Your task to perform on an android device: Show me popular videos on Youtube Image 0: 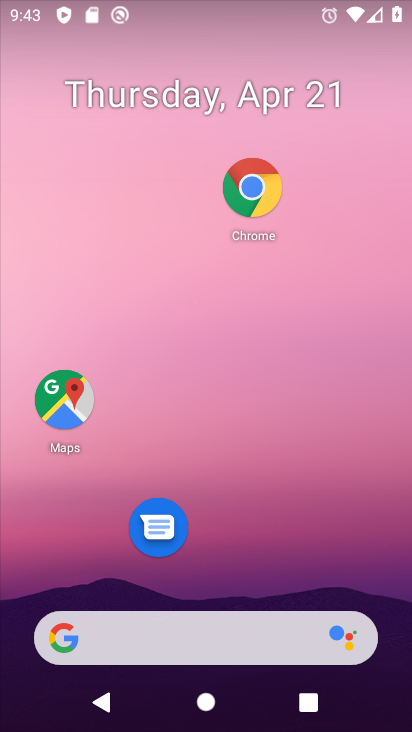
Step 0: click (297, 214)
Your task to perform on an android device: Show me popular videos on Youtube Image 1: 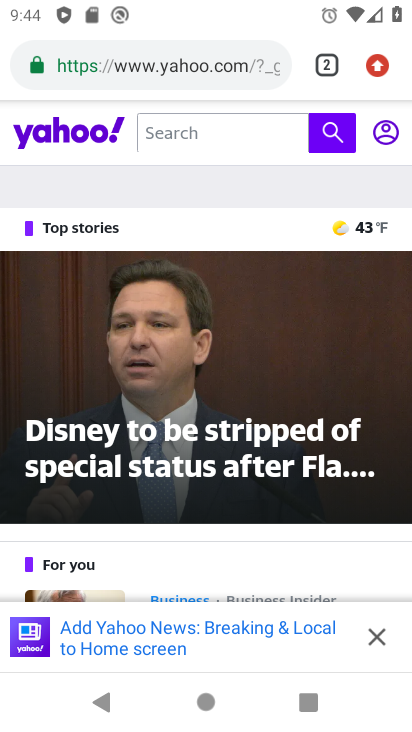
Step 1: press home button
Your task to perform on an android device: Show me popular videos on Youtube Image 2: 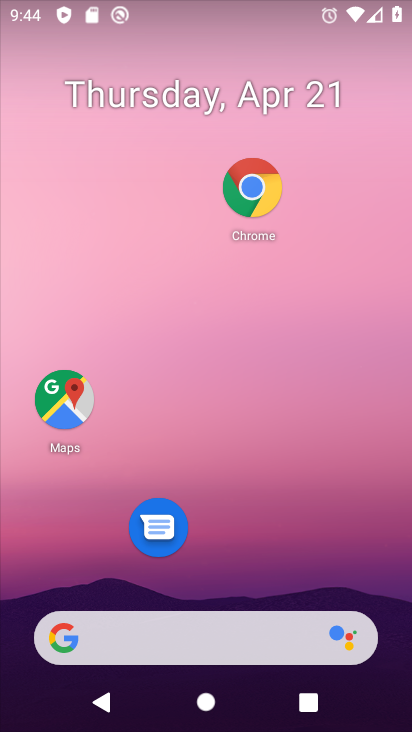
Step 2: drag from (215, 642) to (275, 262)
Your task to perform on an android device: Show me popular videos on Youtube Image 3: 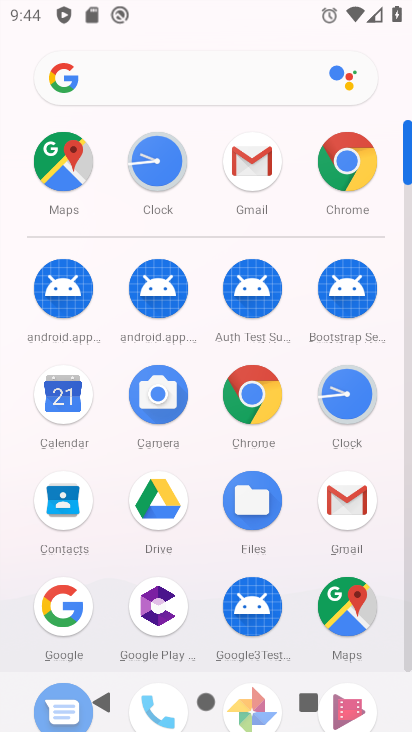
Step 3: drag from (322, 602) to (409, 145)
Your task to perform on an android device: Show me popular videos on Youtube Image 4: 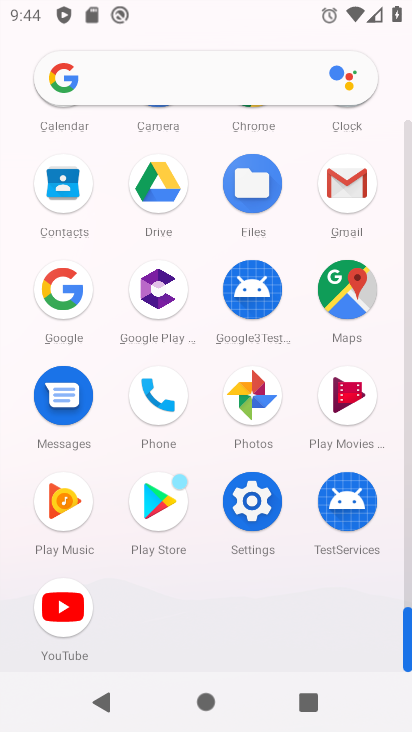
Step 4: click (70, 619)
Your task to perform on an android device: Show me popular videos on Youtube Image 5: 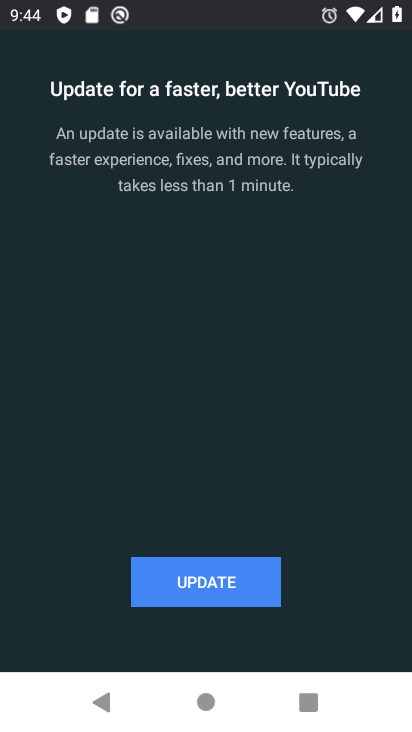
Step 5: press home button
Your task to perform on an android device: Show me popular videos on Youtube Image 6: 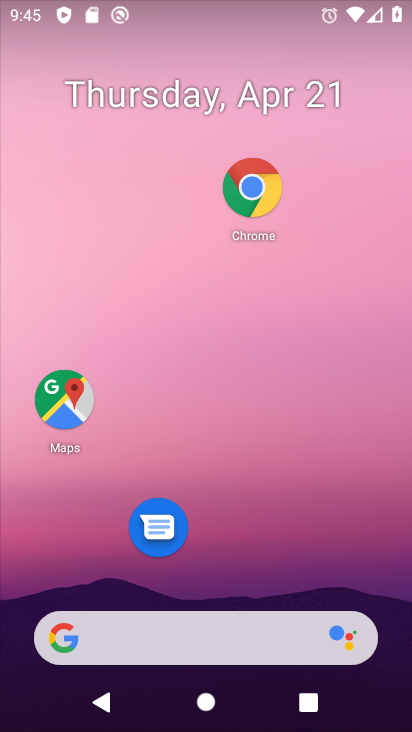
Step 6: drag from (203, 703) to (262, 151)
Your task to perform on an android device: Show me popular videos on Youtube Image 7: 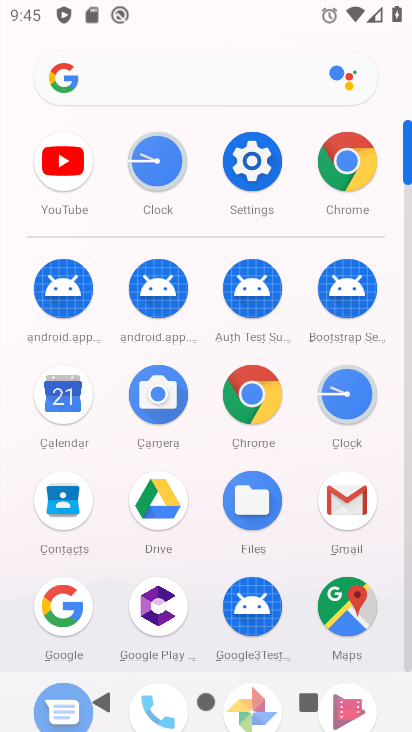
Step 7: click (80, 184)
Your task to perform on an android device: Show me popular videos on Youtube Image 8: 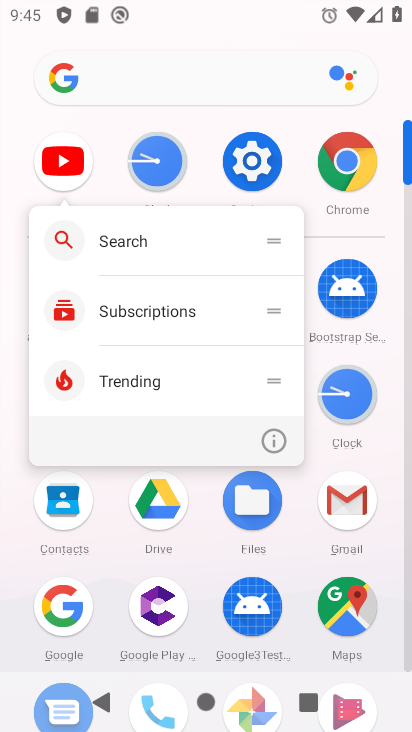
Step 8: click (63, 166)
Your task to perform on an android device: Show me popular videos on Youtube Image 9: 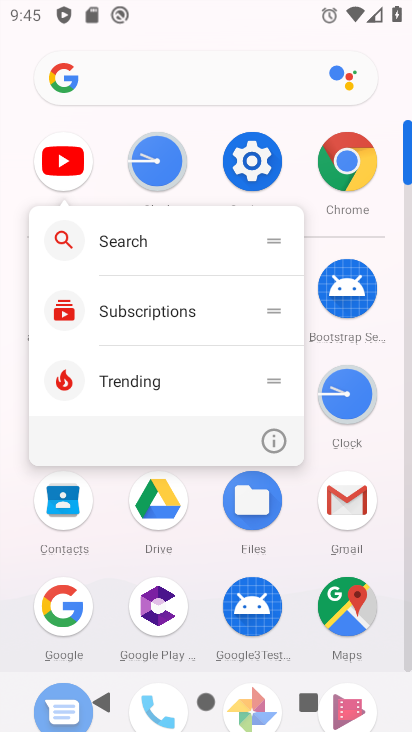
Step 9: click (66, 184)
Your task to perform on an android device: Show me popular videos on Youtube Image 10: 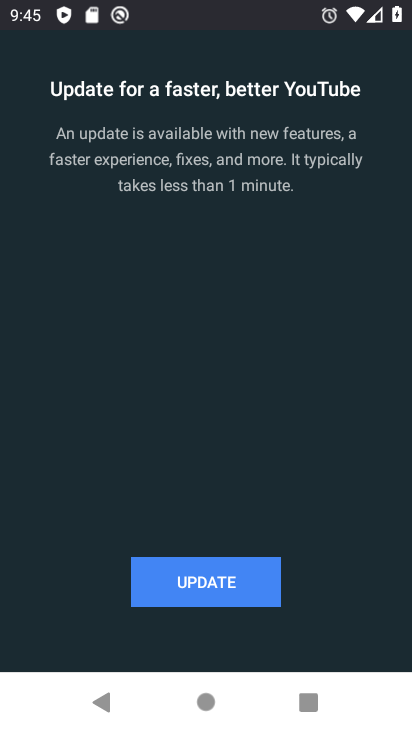
Step 10: task complete